Your task to perform on an android device: Open calendar and show me the fourth week of next month Image 0: 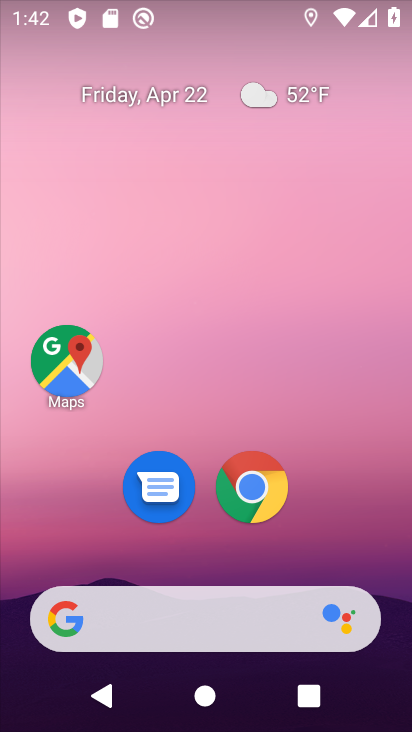
Step 0: drag from (205, 562) to (299, 30)
Your task to perform on an android device: Open calendar and show me the fourth week of next month Image 1: 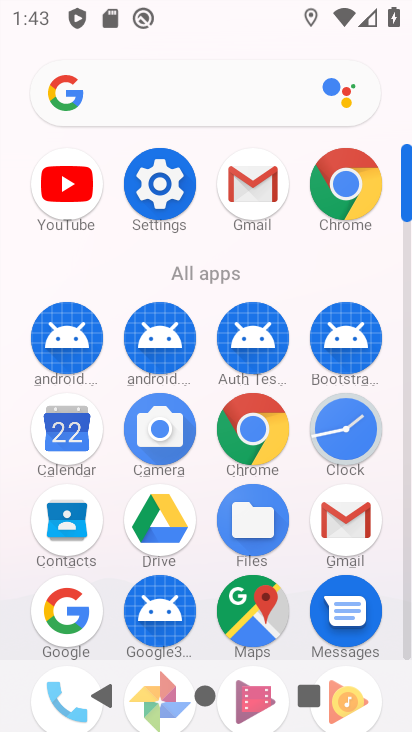
Step 1: click (68, 443)
Your task to perform on an android device: Open calendar and show me the fourth week of next month Image 2: 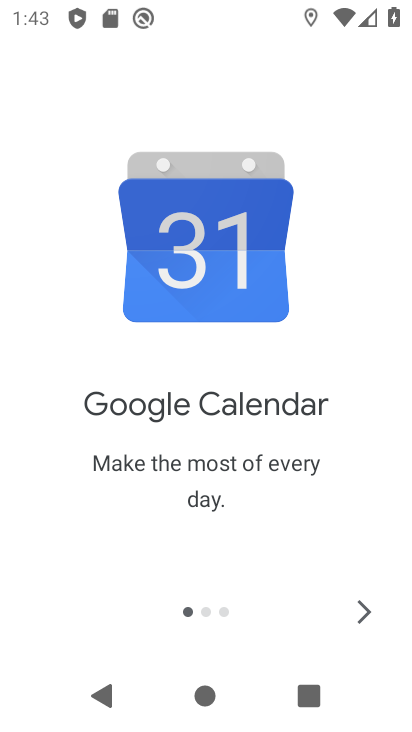
Step 2: click (372, 613)
Your task to perform on an android device: Open calendar and show me the fourth week of next month Image 3: 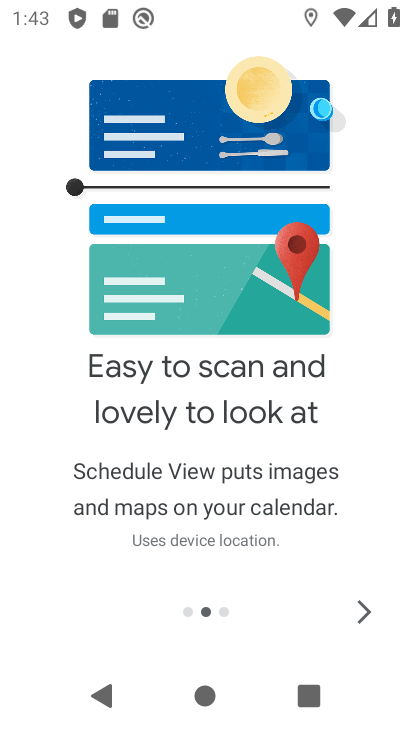
Step 3: click (332, 607)
Your task to perform on an android device: Open calendar and show me the fourth week of next month Image 4: 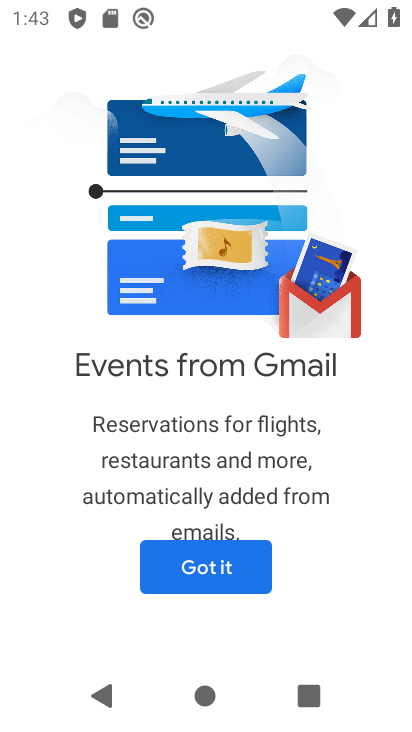
Step 4: click (207, 576)
Your task to perform on an android device: Open calendar and show me the fourth week of next month Image 5: 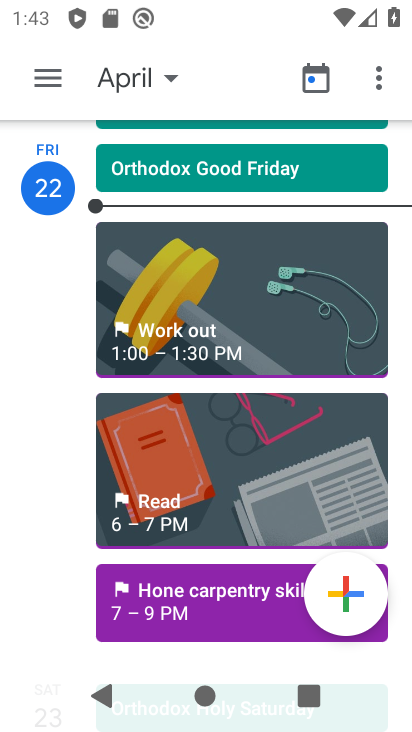
Step 5: click (44, 70)
Your task to perform on an android device: Open calendar and show me the fourth week of next month Image 6: 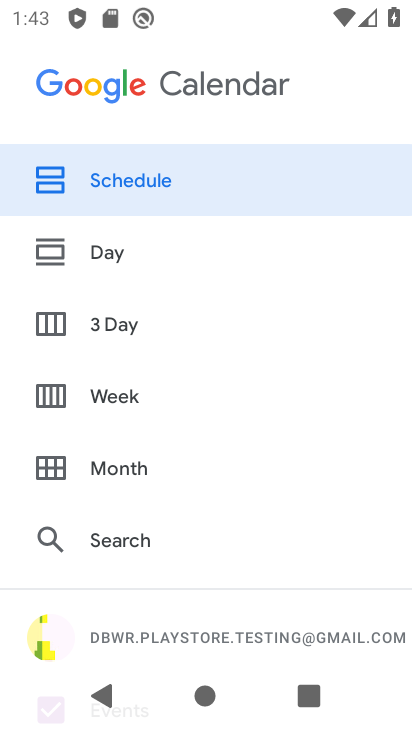
Step 6: click (133, 398)
Your task to perform on an android device: Open calendar and show me the fourth week of next month Image 7: 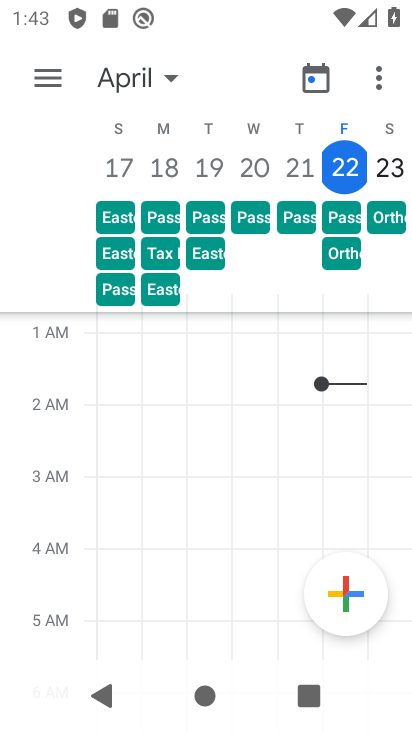
Step 7: click (120, 78)
Your task to perform on an android device: Open calendar and show me the fourth week of next month Image 8: 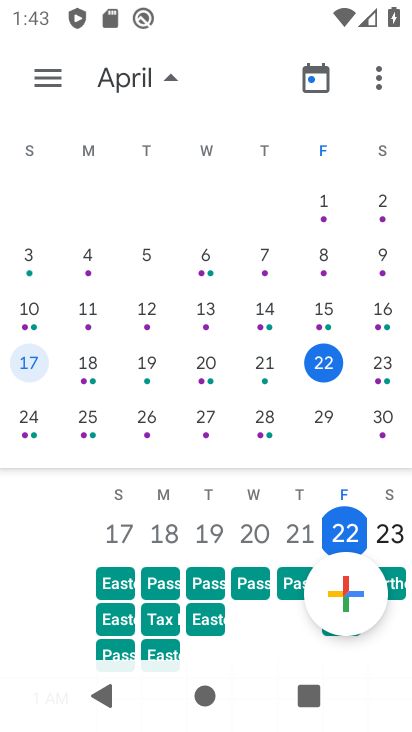
Step 8: drag from (351, 245) to (5, 212)
Your task to perform on an android device: Open calendar and show me the fourth week of next month Image 9: 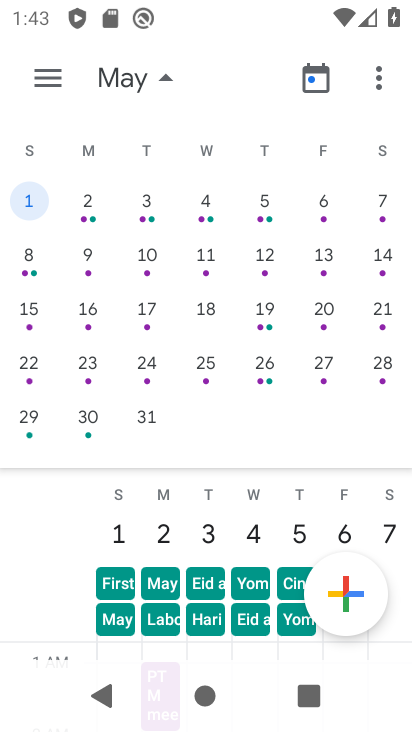
Step 9: drag from (343, 270) to (46, 226)
Your task to perform on an android device: Open calendar and show me the fourth week of next month Image 10: 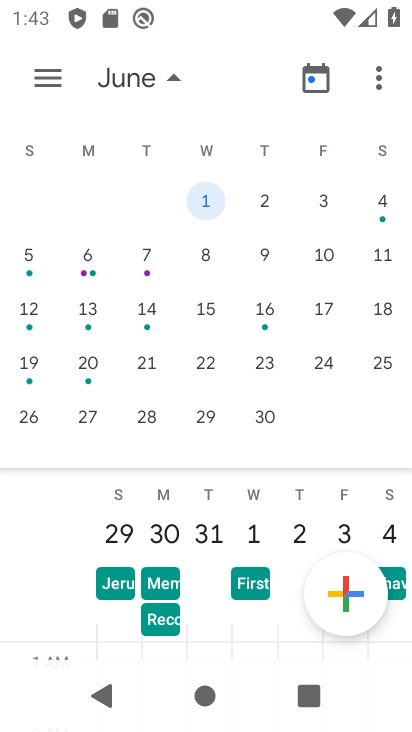
Step 10: click (46, 78)
Your task to perform on an android device: Open calendar and show me the fourth week of next month Image 11: 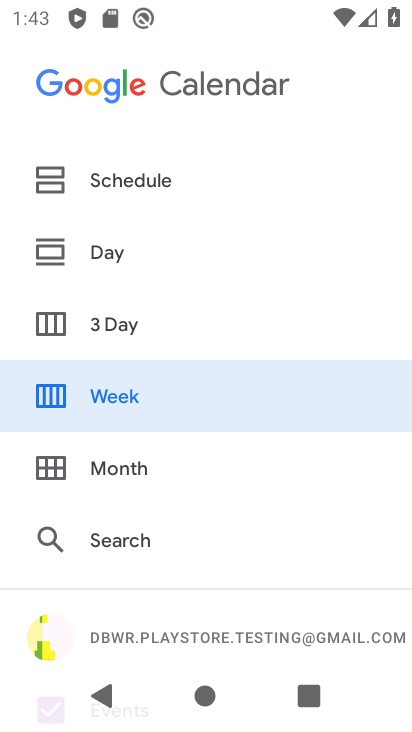
Step 11: click (115, 416)
Your task to perform on an android device: Open calendar and show me the fourth week of next month Image 12: 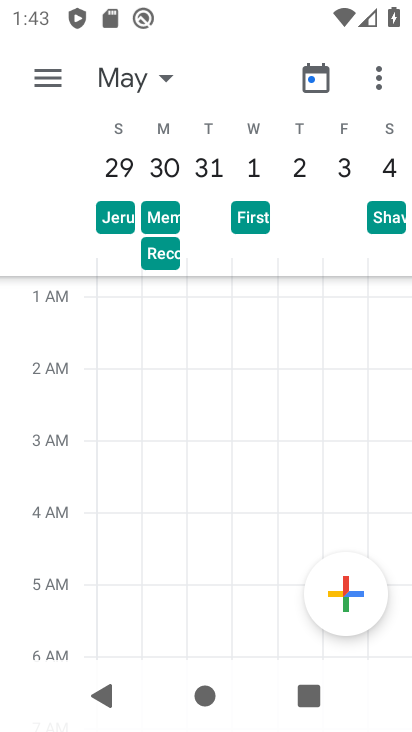
Step 12: task complete